Your task to perform on an android device: change the clock display to show seconds Image 0: 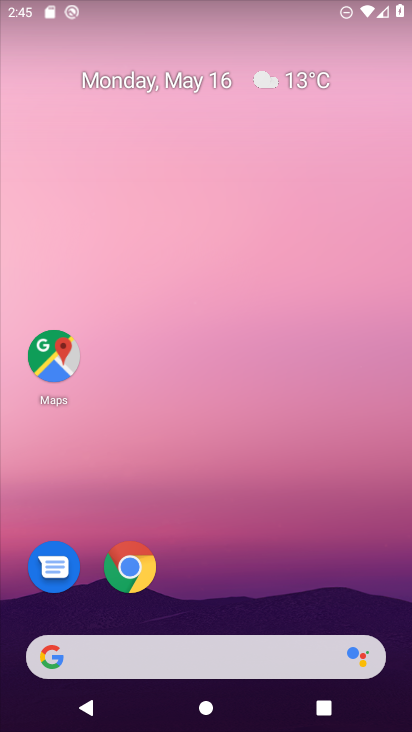
Step 0: drag from (292, 617) to (263, 144)
Your task to perform on an android device: change the clock display to show seconds Image 1: 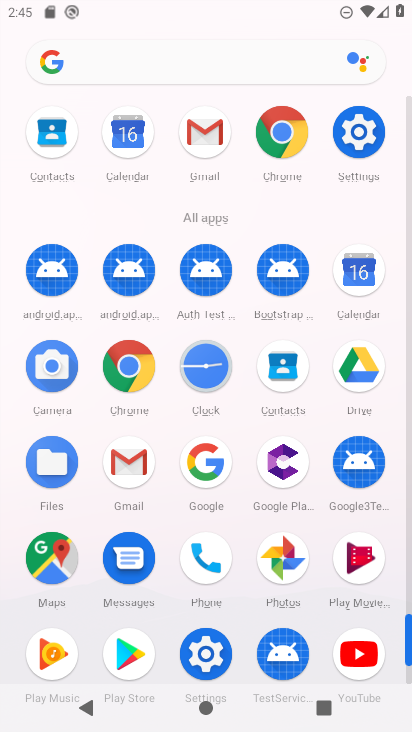
Step 1: click (215, 367)
Your task to perform on an android device: change the clock display to show seconds Image 2: 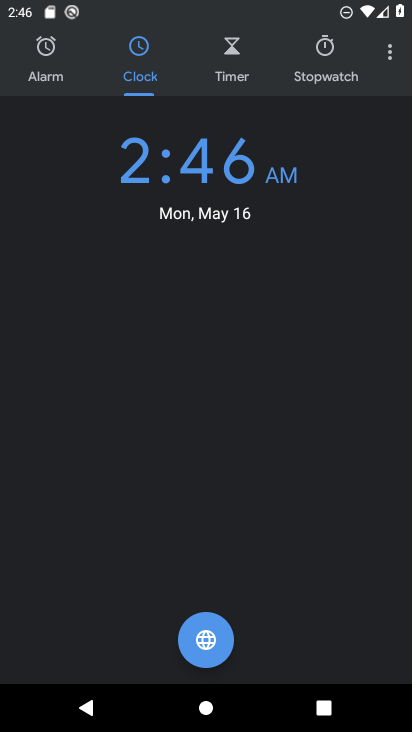
Step 2: click (385, 54)
Your task to perform on an android device: change the clock display to show seconds Image 3: 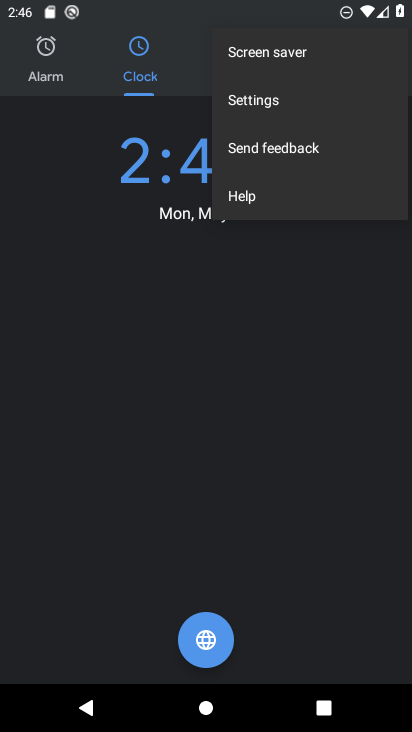
Step 3: click (278, 105)
Your task to perform on an android device: change the clock display to show seconds Image 4: 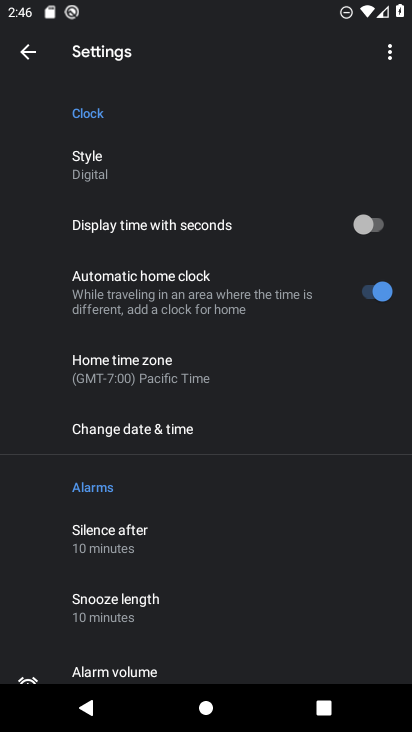
Step 4: click (362, 225)
Your task to perform on an android device: change the clock display to show seconds Image 5: 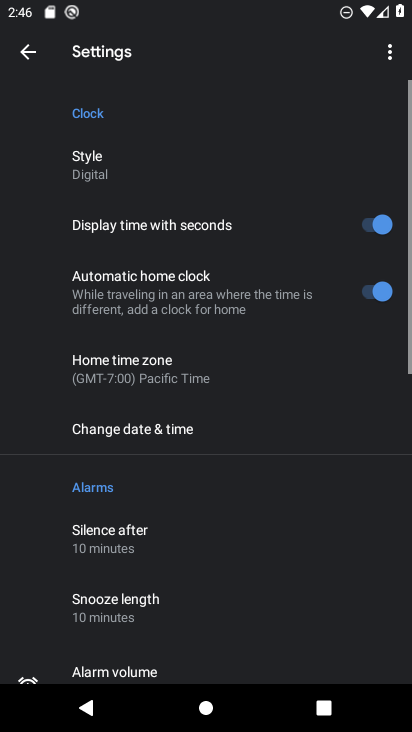
Step 5: task complete